Your task to perform on an android device: set the stopwatch Image 0: 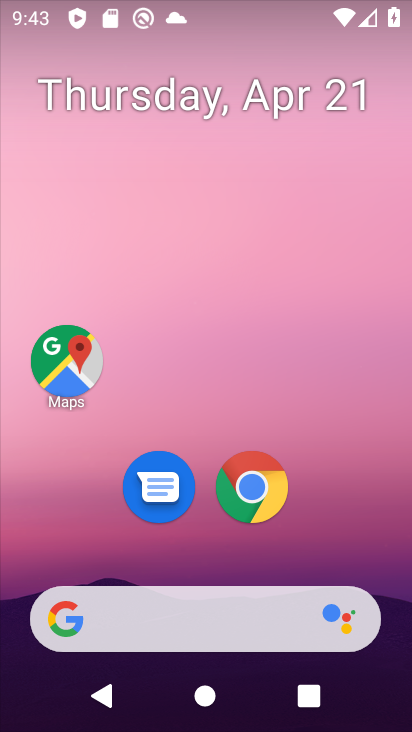
Step 0: drag from (393, 546) to (371, 199)
Your task to perform on an android device: set the stopwatch Image 1: 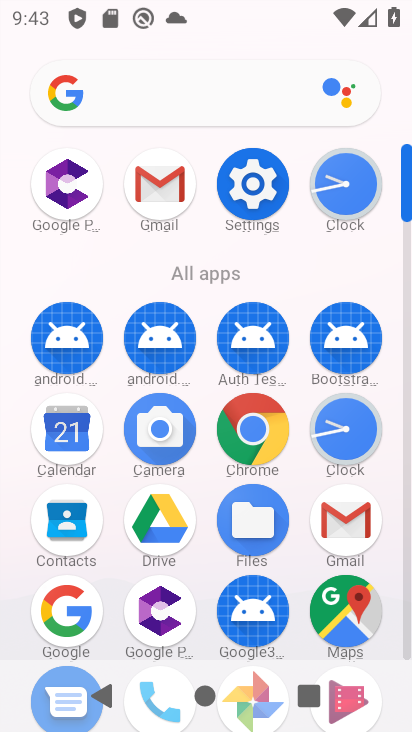
Step 1: click (357, 430)
Your task to perform on an android device: set the stopwatch Image 2: 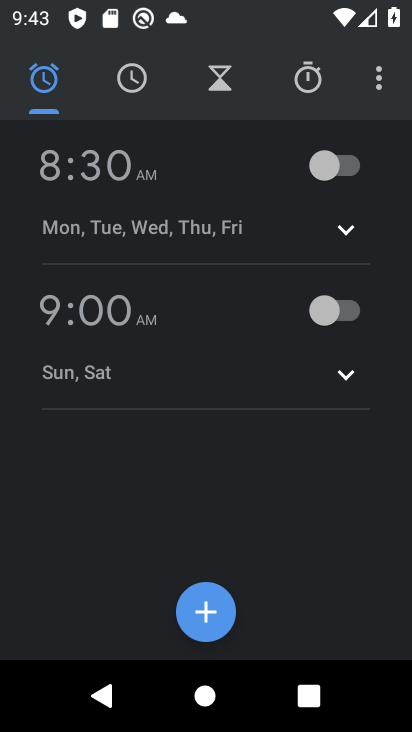
Step 2: click (311, 65)
Your task to perform on an android device: set the stopwatch Image 3: 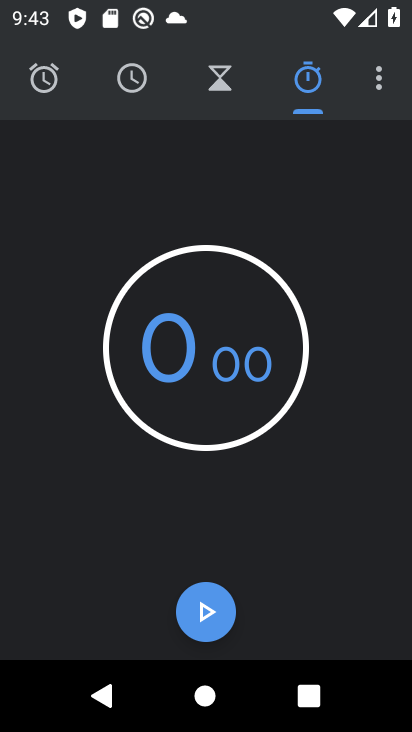
Step 3: click (206, 607)
Your task to perform on an android device: set the stopwatch Image 4: 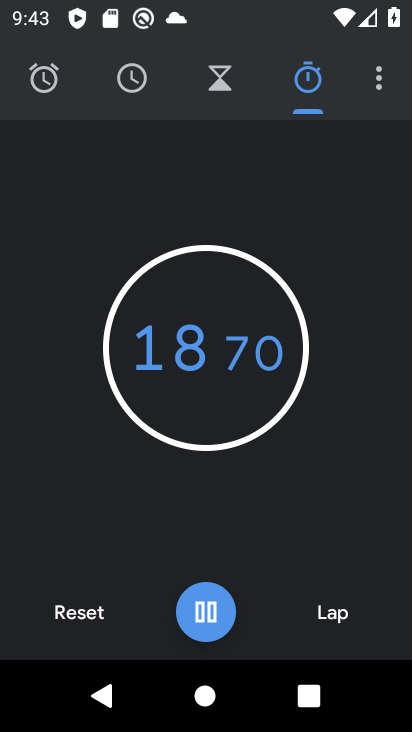
Step 4: task complete